Your task to perform on an android device: Open Google Chrome and open the bookmarks view Image 0: 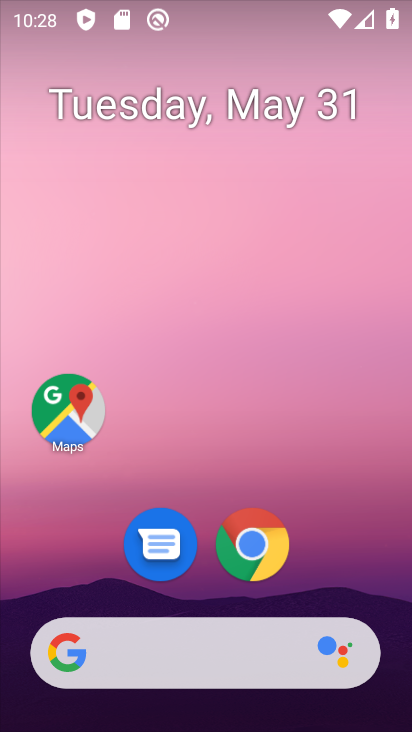
Step 0: click (251, 568)
Your task to perform on an android device: Open Google Chrome and open the bookmarks view Image 1: 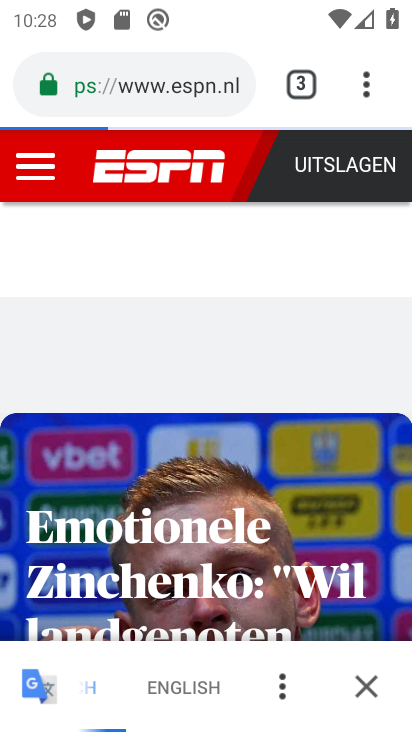
Step 1: task complete